Your task to perform on an android device: toggle javascript in the chrome app Image 0: 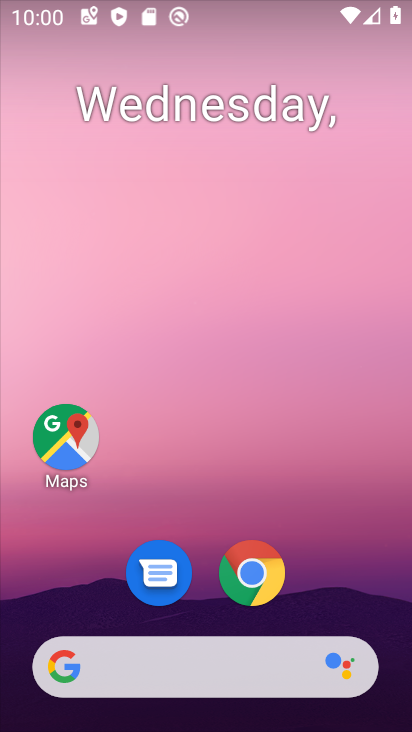
Step 0: drag from (389, 607) to (359, 233)
Your task to perform on an android device: toggle javascript in the chrome app Image 1: 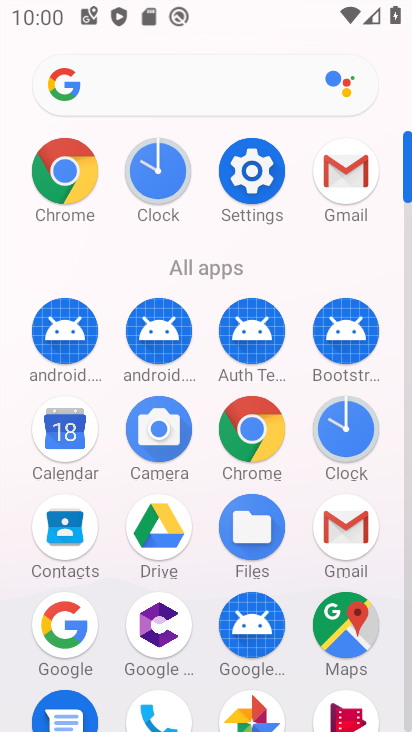
Step 1: click (261, 429)
Your task to perform on an android device: toggle javascript in the chrome app Image 2: 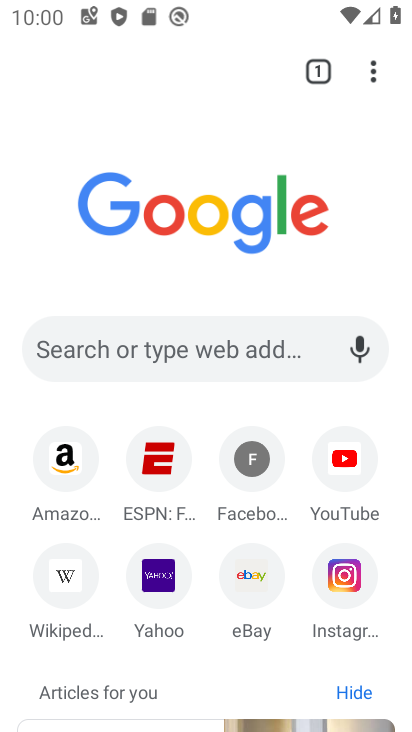
Step 2: click (372, 73)
Your task to perform on an android device: toggle javascript in the chrome app Image 3: 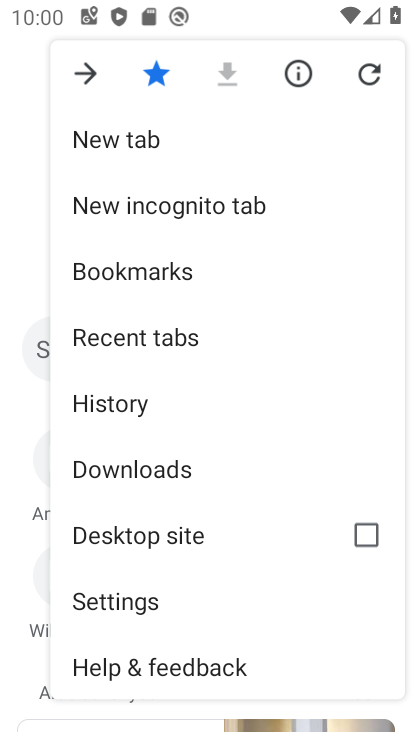
Step 3: drag from (277, 499) to (296, 383)
Your task to perform on an android device: toggle javascript in the chrome app Image 4: 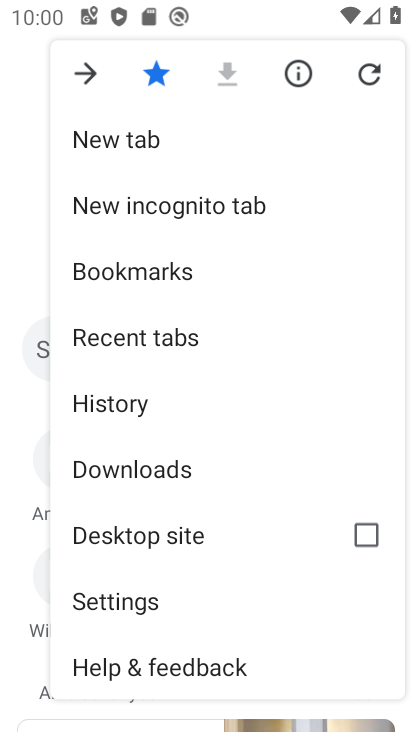
Step 4: click (178, 607)
Your task to perform on an android device: toggle javascript in the chrome app Image 5: 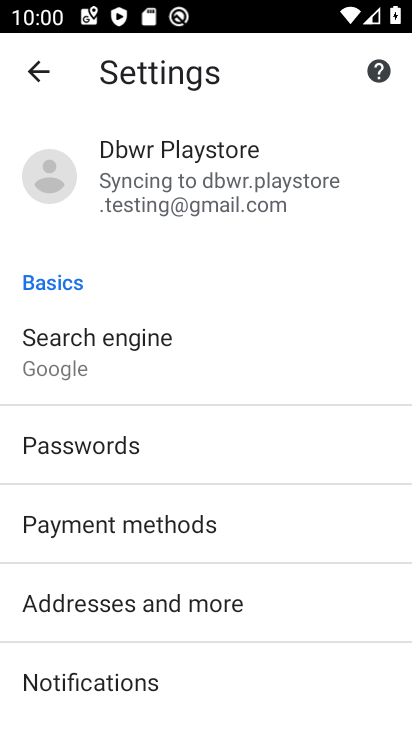
Step 5: drag from (284, 644) to (314, 499)
Your task to perform on an android device: toggle javascript in the chrome app Image 6: 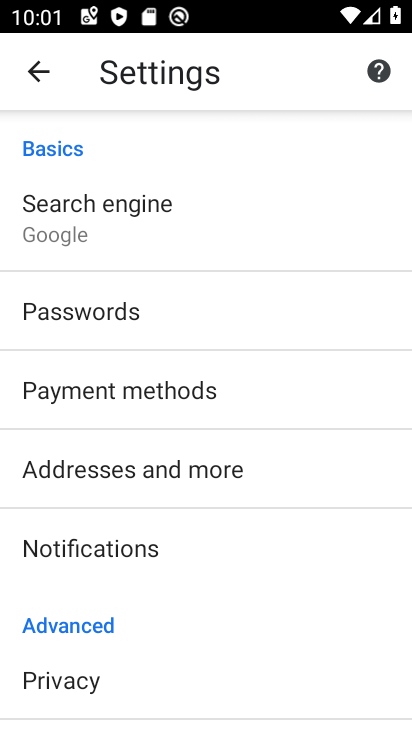
Step 6: drag from (319, 629) to (334, 517)
Your task to perform on an android device: toggle javascript in the chrome app Image 7: 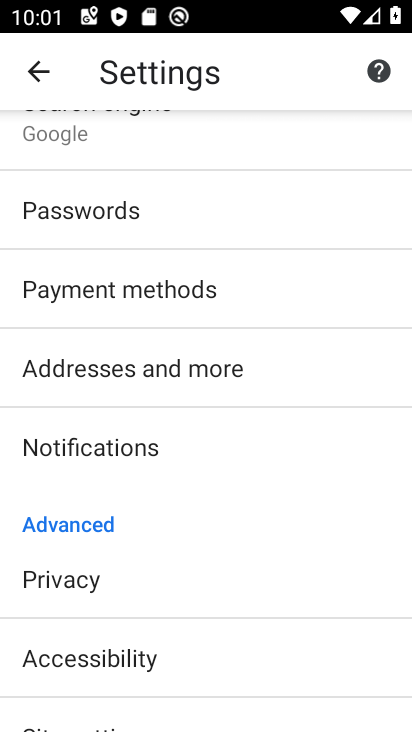
Step 7: drag from (338, 689) to (337, 561)
Your task to perform on an android device: toggle javascript in the chrome app Image 8: 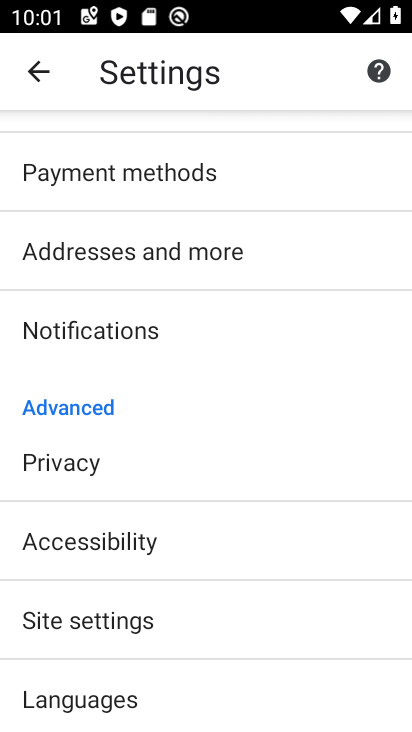
Step 8: drag from (340, 682) to (349, 588)
Your task to perform on an android device: toggle javascript in the chrome app Image 9: 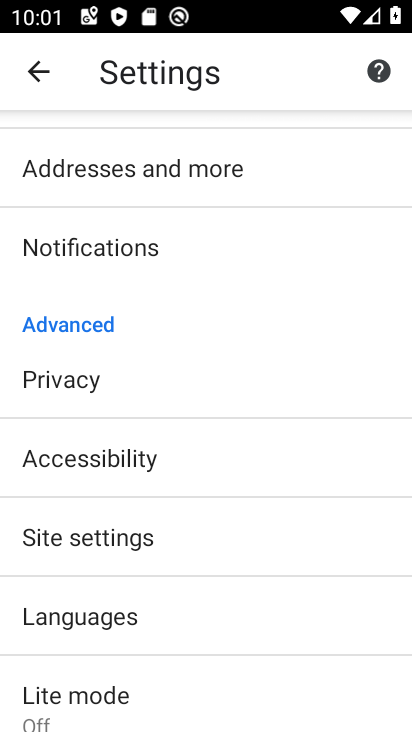
Step 9: drag from (339, 677) to (336, 582)
Your task to perform on an android device: toggle javascript in the chrome app Image 10: 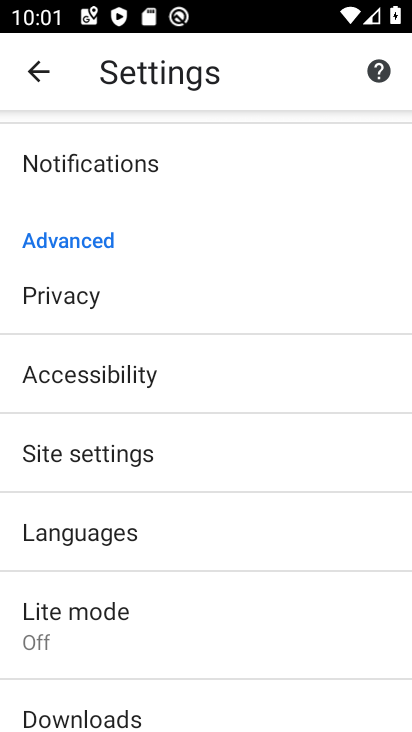
Step 10: drag from (323, 680) to (333, 593)
Your task to perform on an android device: toggle javascript in the chrome app Image 11: 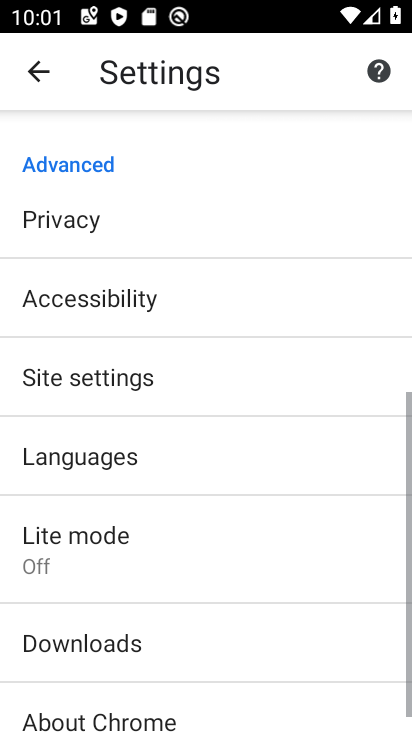
Step 11: drag from (331, 665) to (333, 583)
Your task to perform on an android device: toggle javascript in the chrome app Image 12: 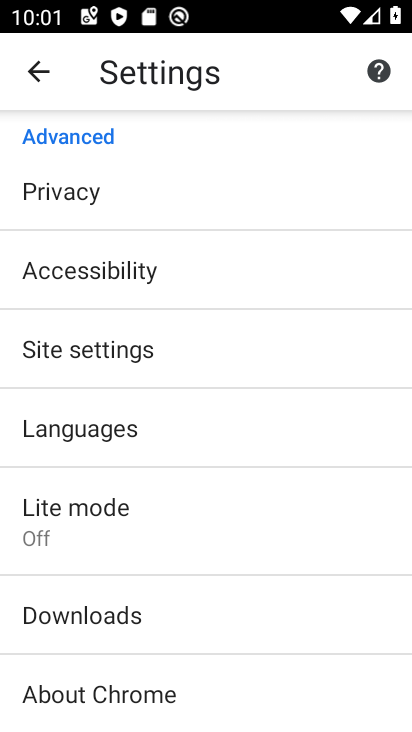
Step 12: drag from (325, 643) to (341, 513)
Your task to perform on an android device: toggle javascript in the chrome app Image 13: 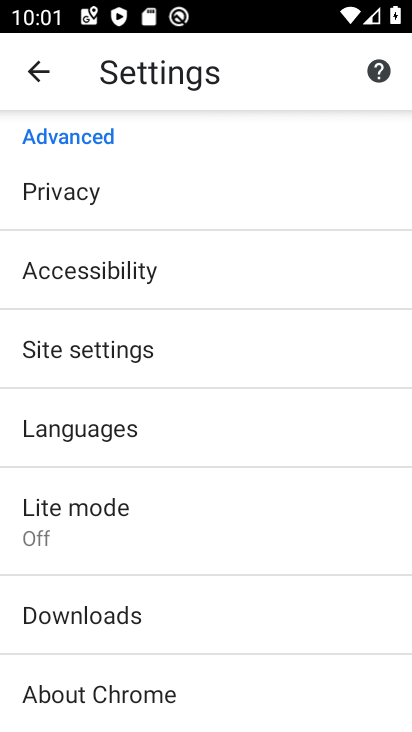
Step 13: drag from (313, 387) to (310, 462)
Your task to perform on an android device: toggle javascript in the chrome app Image 14: 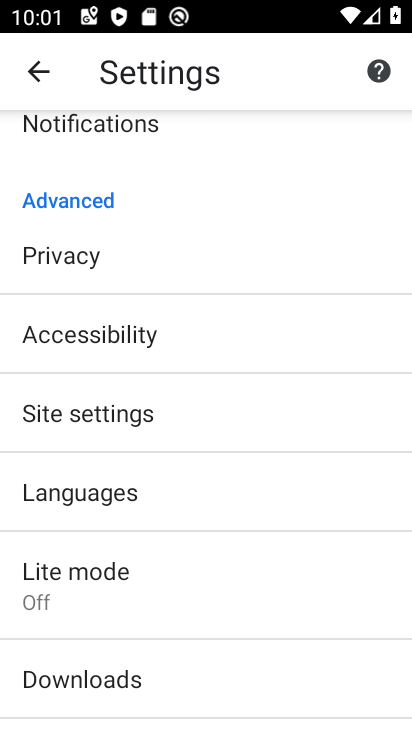
Step 14: drag from (294, 336) to (292, 416)
Your task to perform on an android device: toggle javascript in the chrome app Image 15: 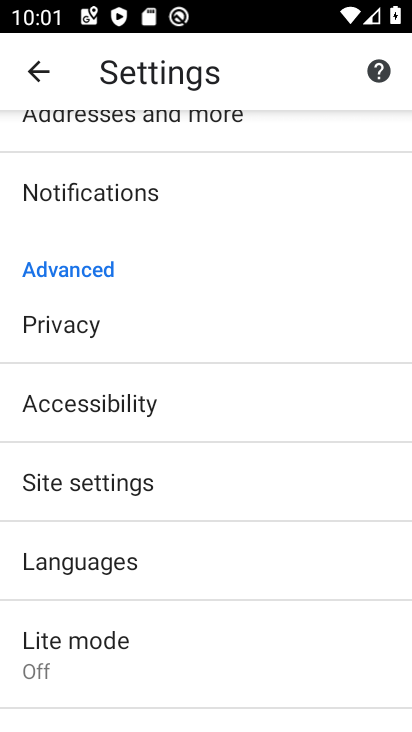
Step 15: click (299, 468)
Your task to perform on an android device: toggle javascript in the chrome app Image 16: 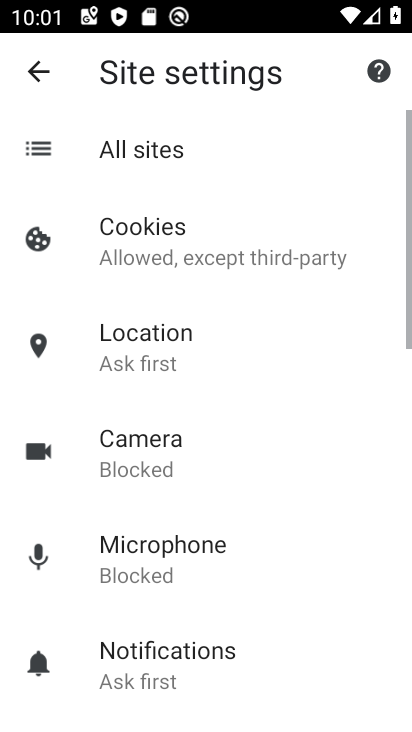
Step 16: drag from (311, 540) to (313, 462)
Your task to perform on an android device: toggle javascript in the chrome app Image 17: 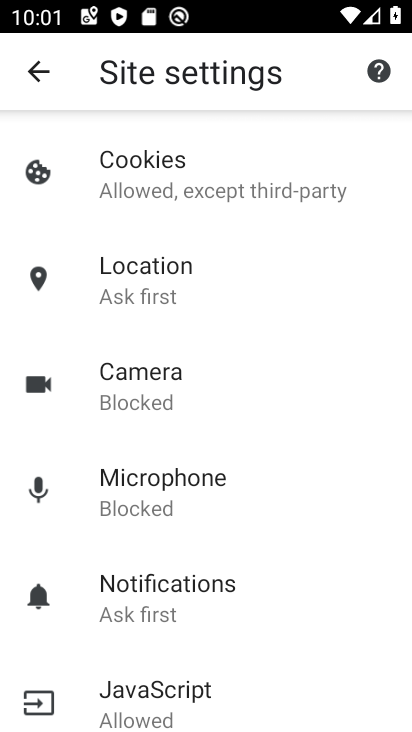
Step 17: drag from (331, 551) to (333, 468)
Your task to perform on an android device: toggle javascript in the chrome app Image 18: 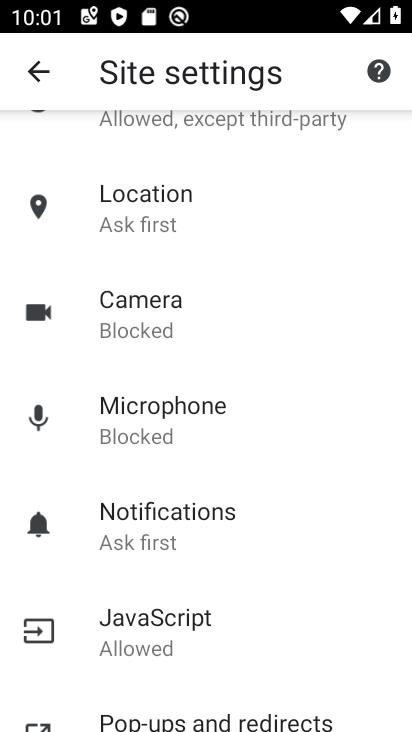
Step 18: drag from (325, 573) to (322, 491)
Your task to perform on an android device: toggle javascript in the chrome app Image 19: 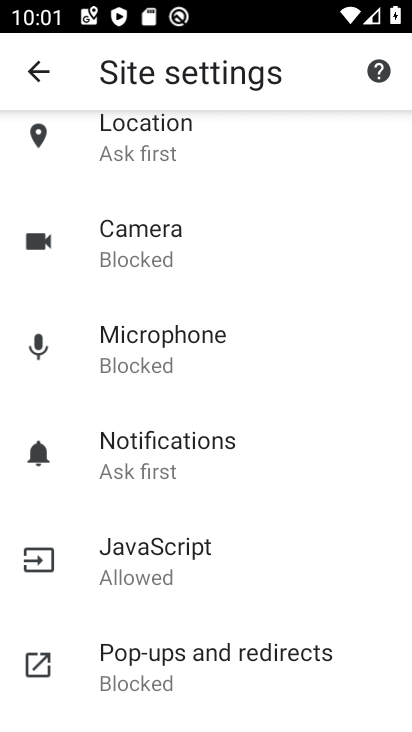
Step 19: drag from (314, 566) to (311, 478)
Your task to perform on an android device: toggle javascript in the chrome app Image 20: 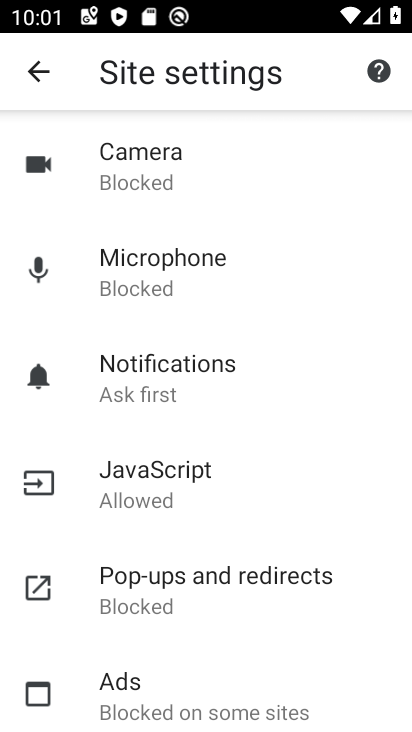
Step 20: drag from (308, 634) to (313, 529)
Your task to perform on an android device: toggle javascript in the chrome app Image 21: 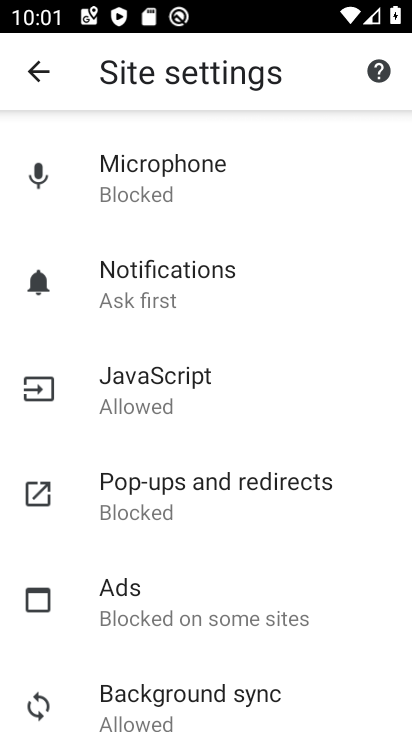
Step 21: drag from (320, 664) to (327, 556)
Your task to perform on an android device: toggle javascript in the chrome app Image 22: 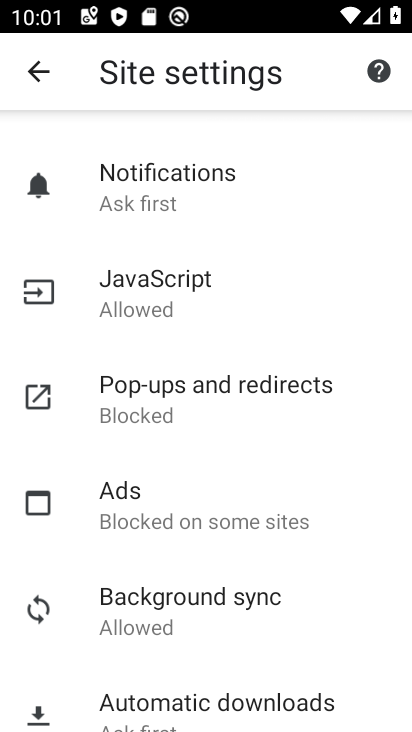
Step 22: drag from (341, 646) to (340, 556)
Your task to perform on an android device: toggle javascript in the chrome app Image 23: 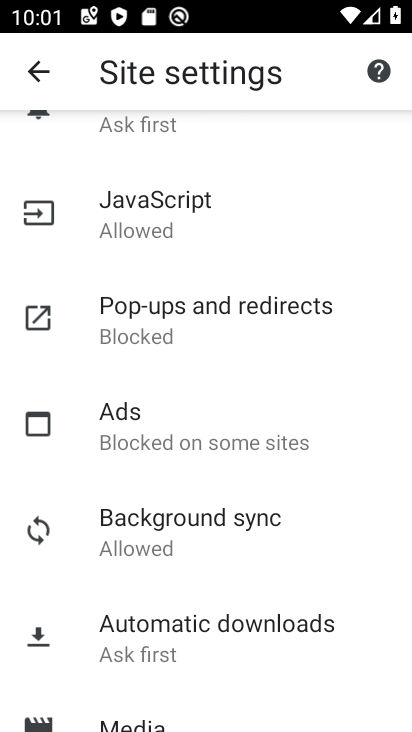
Step 23: drag from (355, 667) to (356, 547)
Your task to perform on an android device: toggle javascript in the chrome app Image 24: 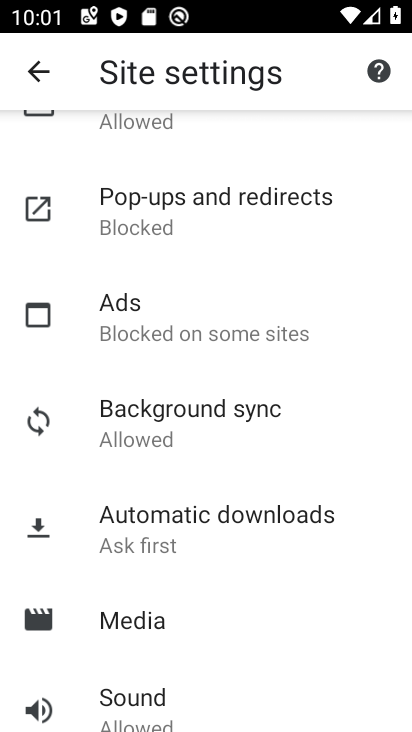
Step 24: drag from (365, 669) to (361, 580)
Your task to perform on an android device: toggle javascript in the chrome app Image 25: 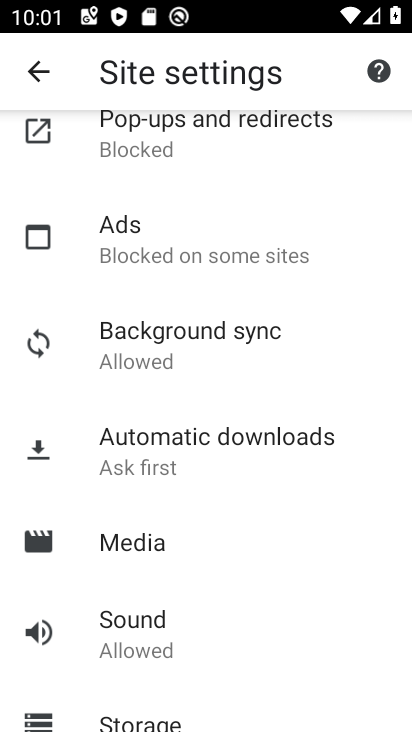
Step 25: drag from (358, 444) to (356, 549)
Your task to perform on an android device: toggle javascript in the chrome app Image 26: 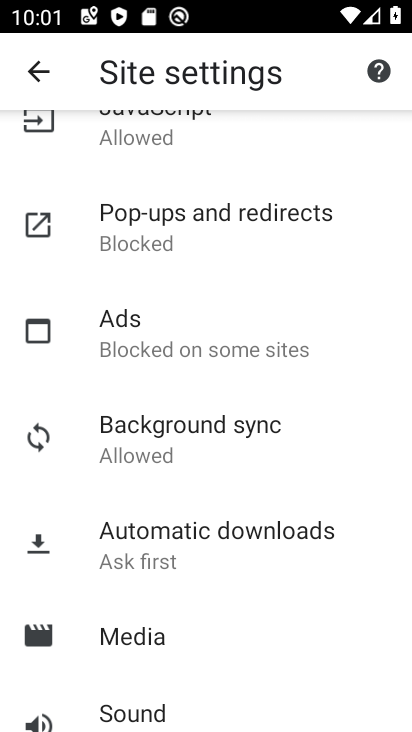
Step 26: drag from (355, 430) to (347, 534)
Your task to perform on an android device: toggle javascript in the chrome app Image 27: 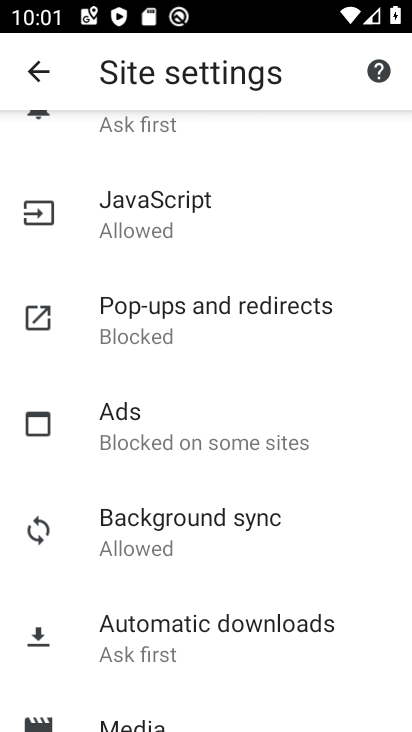
Step 27: drag from (356, 401) to (360, 497)
Your task to perform on an android device: toggle javascript in the chrome app Image 28: 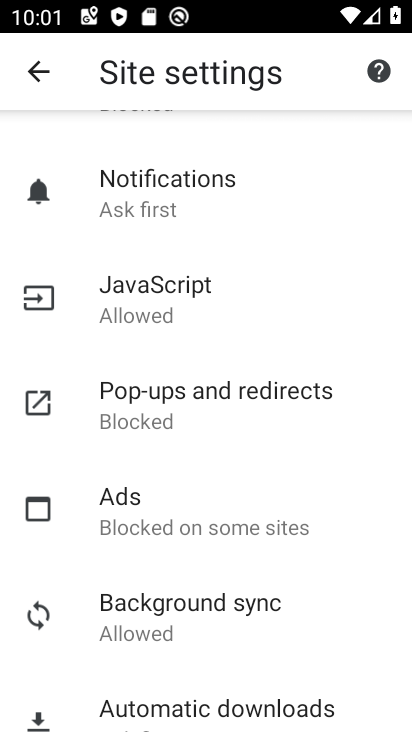
Step 28: drag from (364, 423) to (364, 522)
Your task to perform on an android device: toggle javascript in the chrome app Image 29: 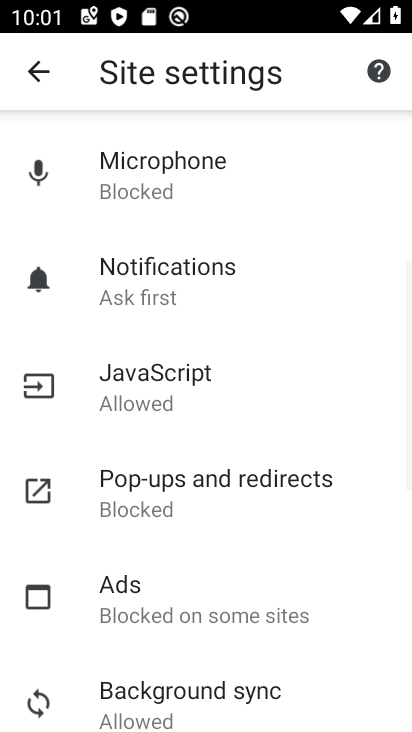
Step 29: drag from (359, 396) to (361, 482)
Your task to perform on an android device: toggle javascript in the chrome app Image 30: 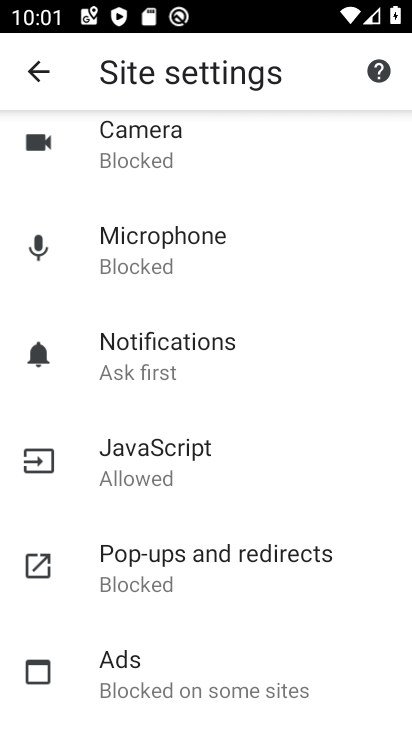
Step 30: click (171, 480)
Your task to perform on an android device: toggle javascript in the chrome app Image 31: 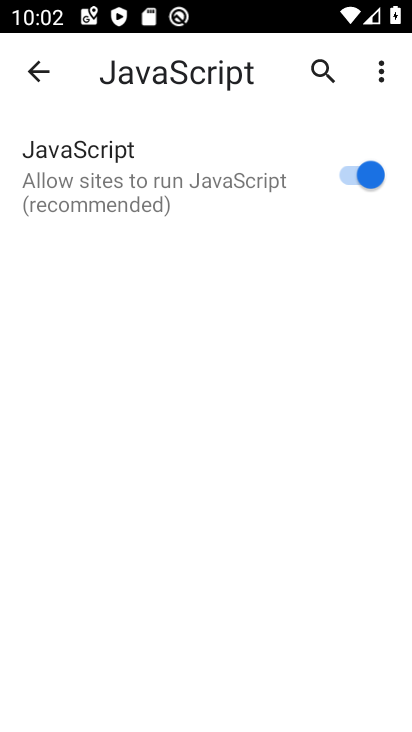
Step 31: click (365, 172)
Your task to perform on an android device: toggle javascript in the chrome app Image 32: 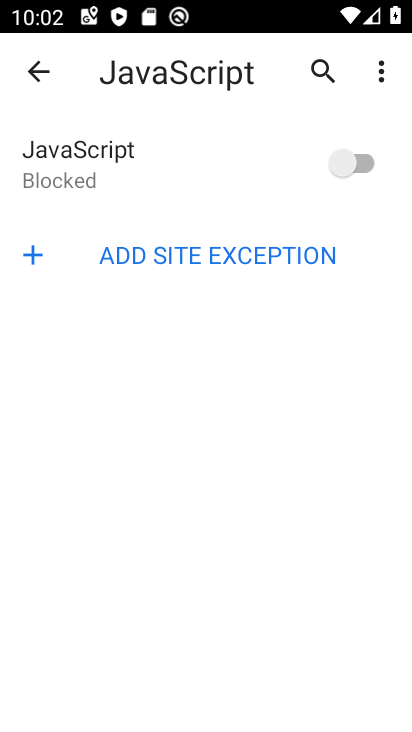
Step 32: task complete